Your task to perform on an android device: set an alarm Image 0: 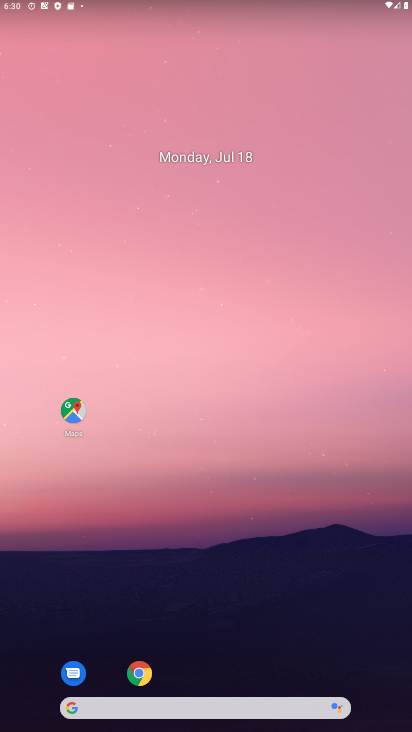
Step 0: drag from (233, 399) to (233, 193)
Your task to perform on an android device: set an alarm Image 1: 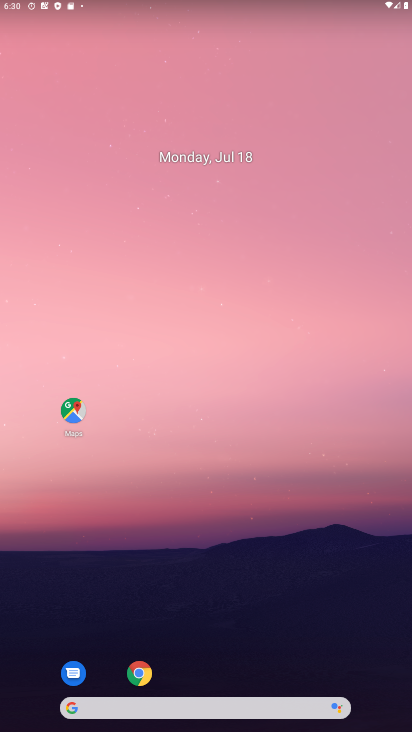
Step 1: drag from (272, 601) to (233, 195)
Your task to perform on an android device: set an alarm Image 2: 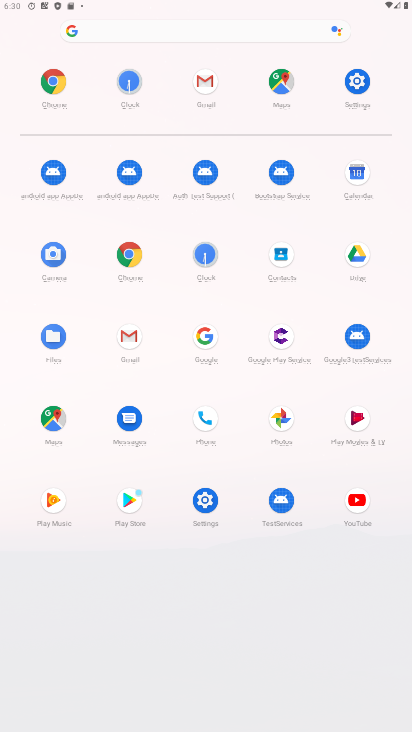
Step 2: click (206, 257)
Your task to perform on an android device: set an alarm Image 3: 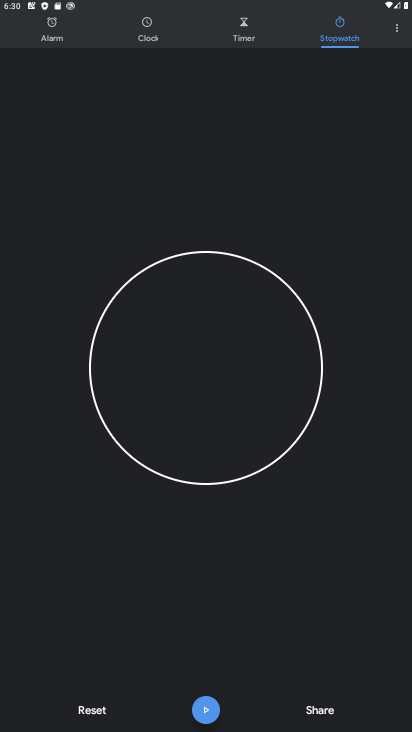
Step 3: click (45, 21)
Your task to perform on an android device: set an alarm Image 4: 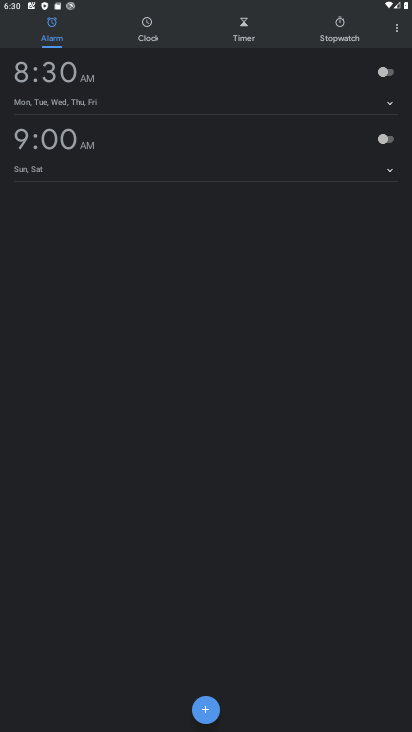
Step 4: click (385, 78)
Your task to perform on an android device: set an alarm Image 5: 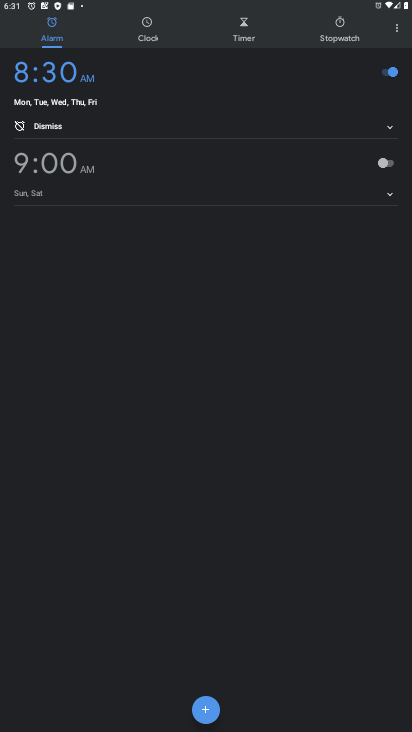
Step 5: task complete